Your task to perform on an android device: Open Google Chrome and open the bookmarks view Image 0: 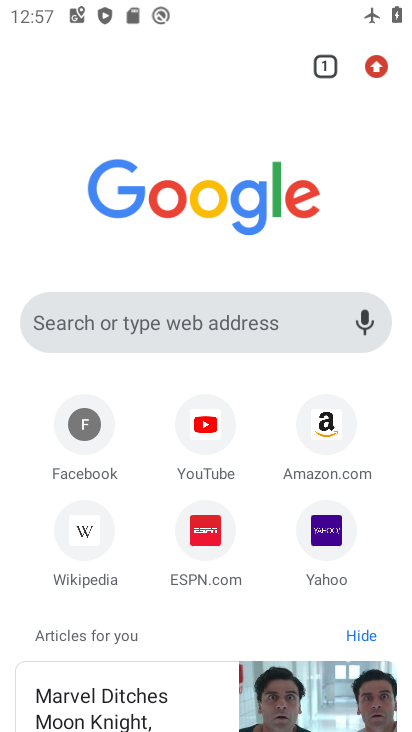
Step 0: press home button
Your task to perform on an android device: Open Google Chrome and open the bookmarks view Image 1: 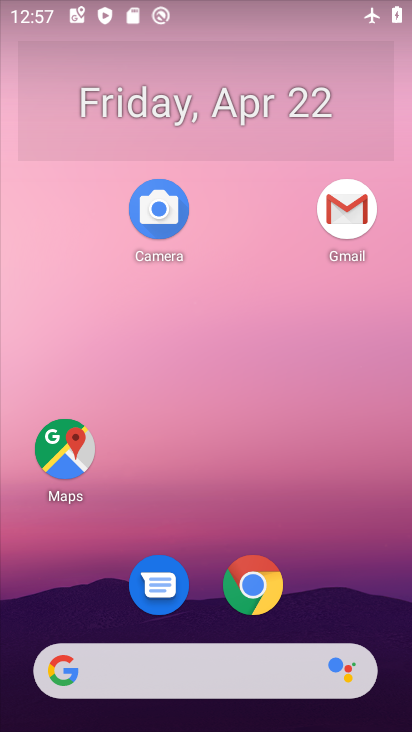
Step 1: click (267, 578)
Your task to perform on an android device: Open Google Chrome and open the bookmarks view Image 2: 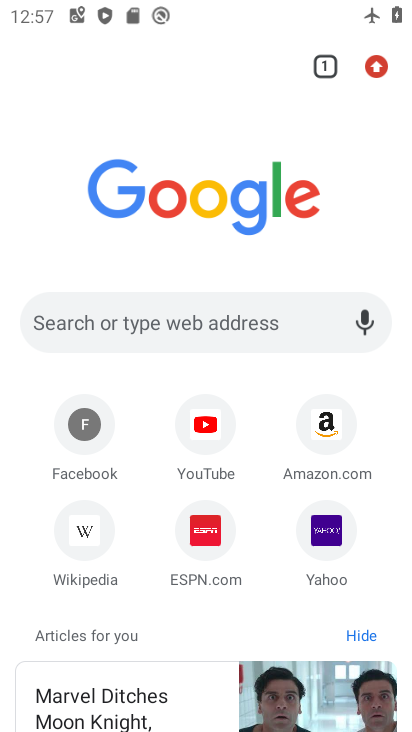
Step 2: task complete